Your task to perform on an android device: open app "Google Pay: Save, Pay, Manage" (install if not already installed) Image 0: 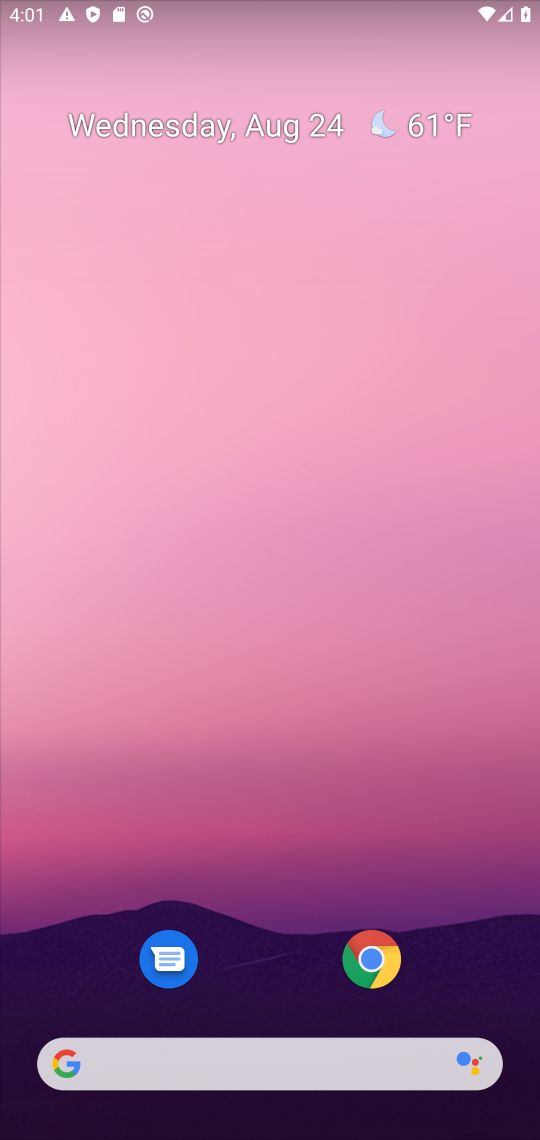
Step 0: drag from (272, 1007) to (264, 172)
Your task to perform on an android device: open app "Google Pay: Save, Pay, Manage" (install if not already installed) Image 1: 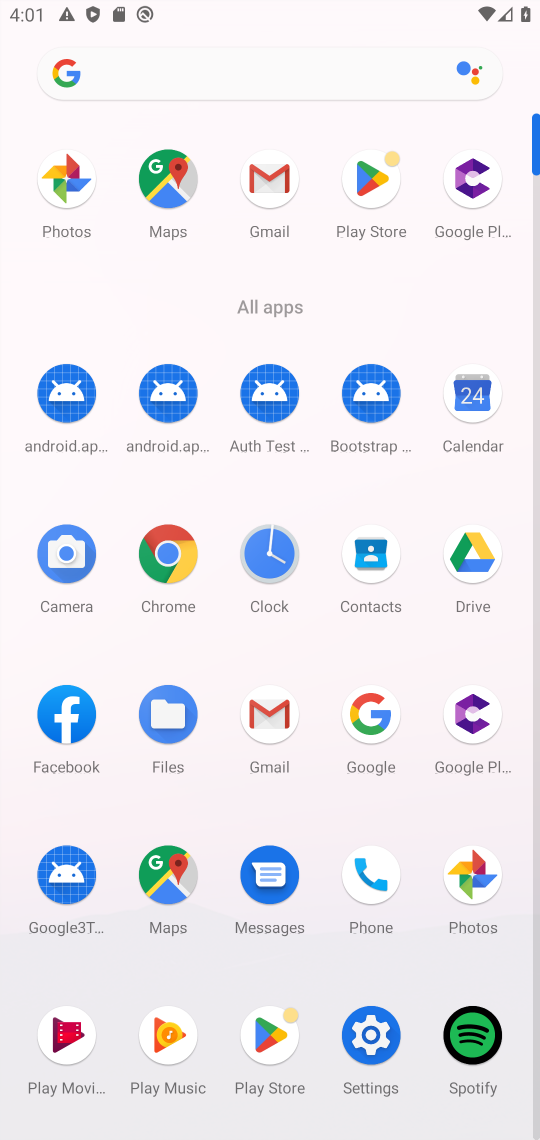
Step 1: click (352, 186)
Your task to perform on an android device: open app "Google Pay: Save, Pay, Manage" (install if not already installed) Image 2: 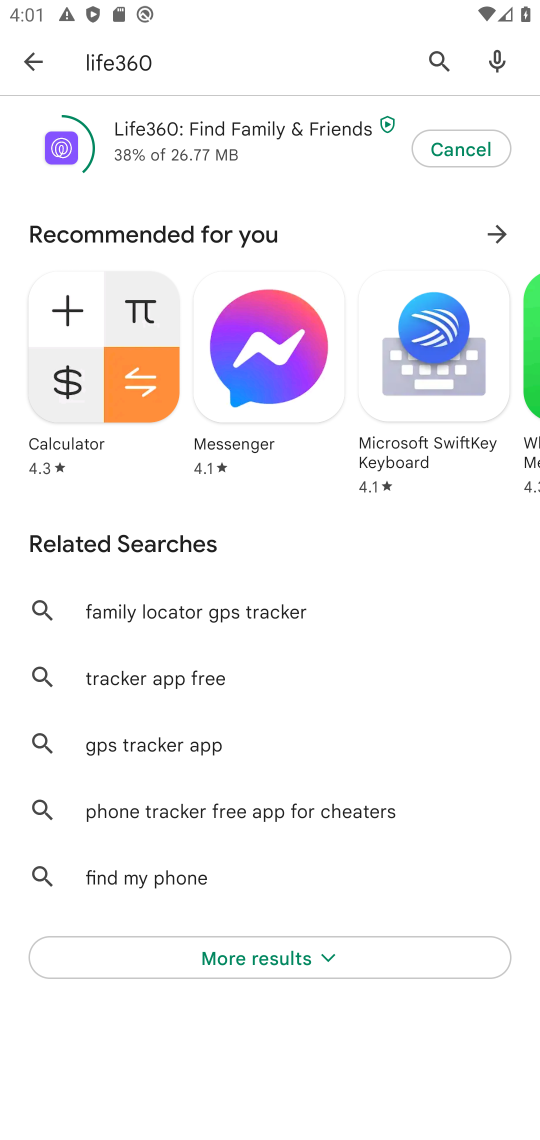
Step 2: click (438, 76)
Your task to perform on an android device: open app "Google Pay: Save, Pay, Manage" (install if not already installed) Image 3: 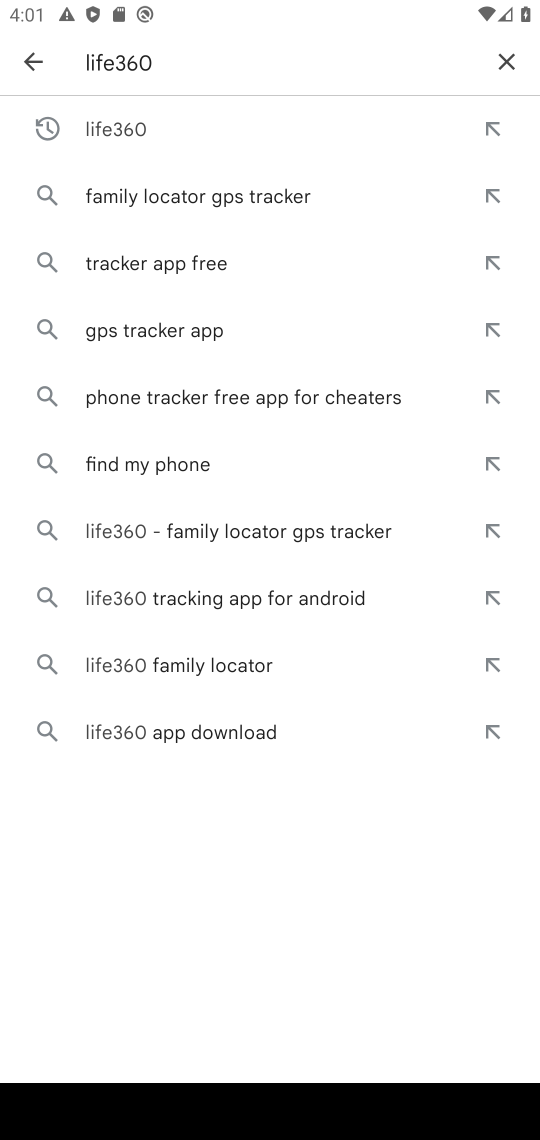
Step 3: click (503, 68)
Your task to perform on an android device: open app "Google Pay: Save, Pay, Manage" (install if not already installed) Image 4: 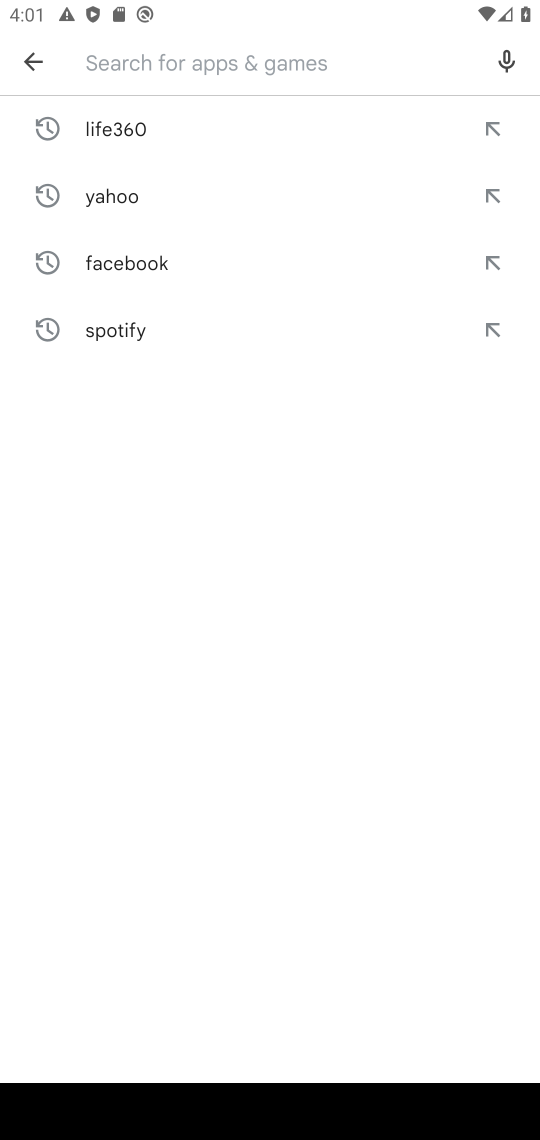
Step 4: type "google pay"
Your task to perform on an android device: open app "Google Pay: Save, Pay, Manage" (install if not already installed) Image 5: 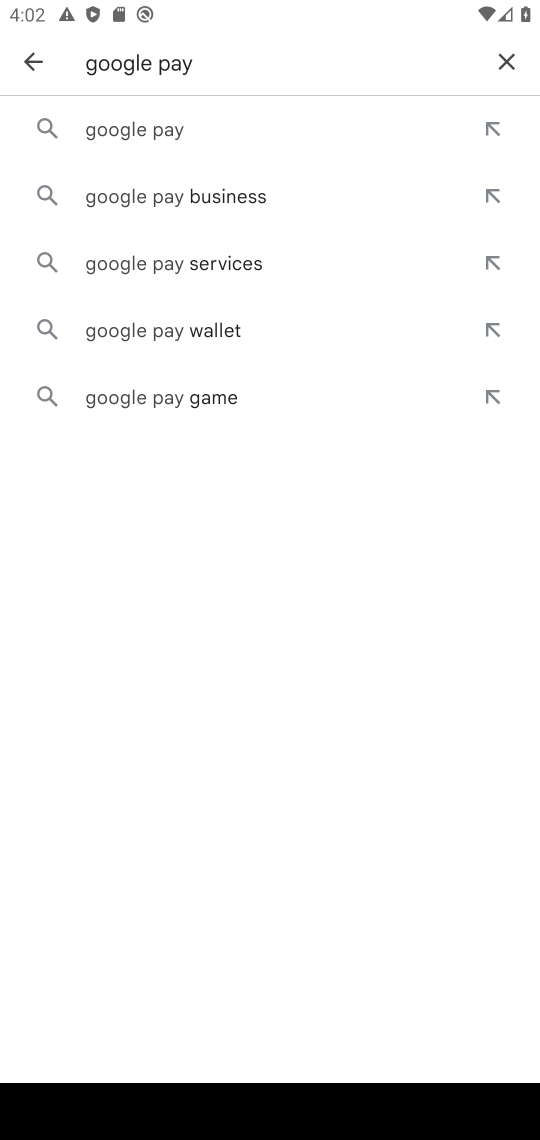
Step 5: click (184, 107)
Your task to perform on an android device: open app "Google Pay: Save, Pay, Manage" (install if not already installed) Image 6: 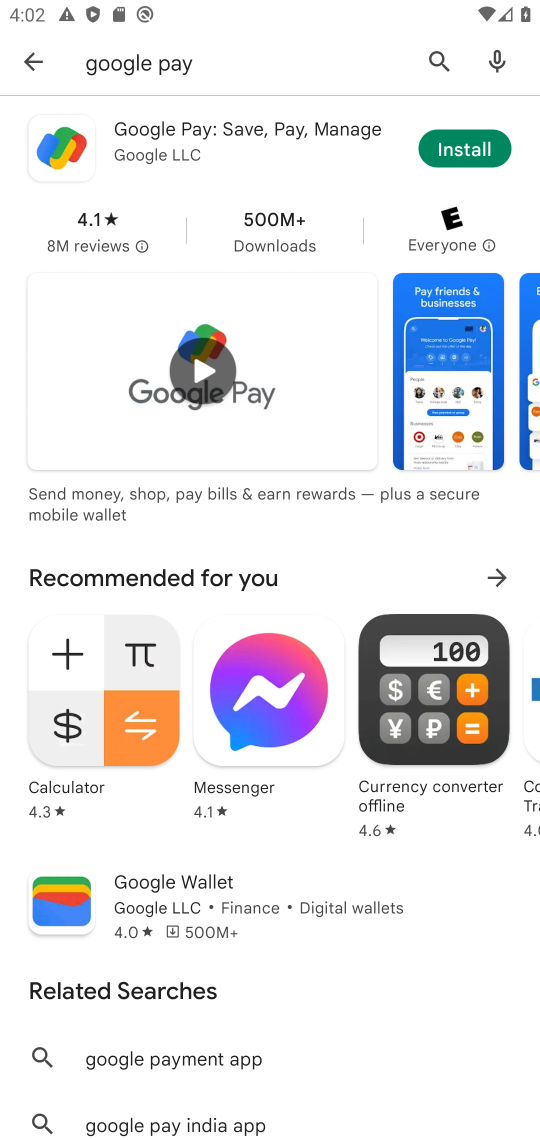
Step 6: click (467, 130)
Your task to perform on an android device: open app "Google Pay: Save, Pay, Manage" (install if not already installed) Image 7: 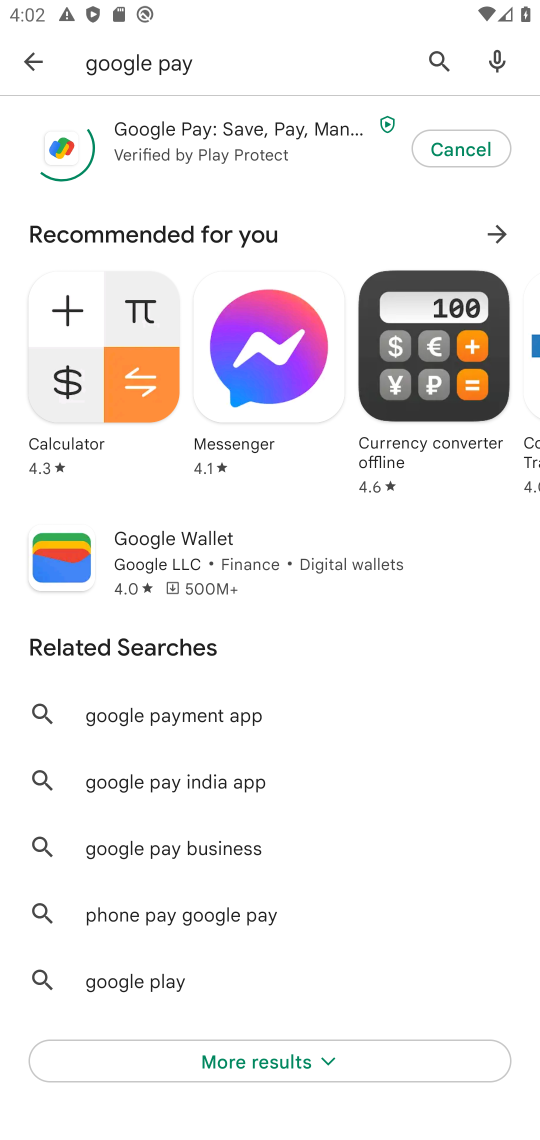
Step 7: task complete